Your task to perform on an android device: Open eBay Image 0: 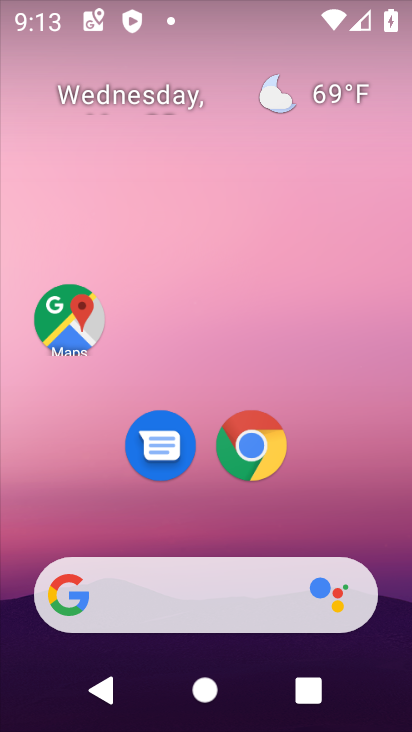
Step 0: click (252, 443)
Your task to perform on an android device: Open eBay Image 1: 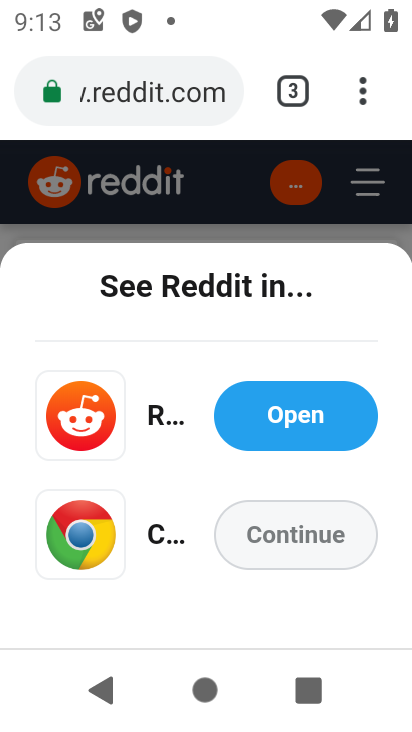
Step 1: click (159, 94)
Your task to perform on an android device: Open eBay Image 2: 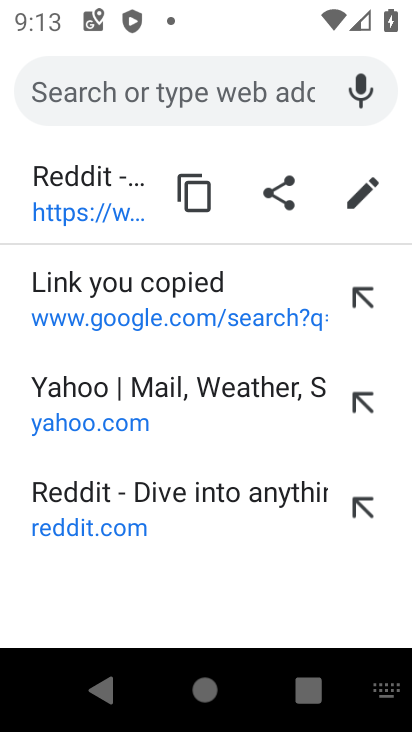
Step 2: type "eBay"
Your task to perform on an android device: Open eBay Image 3: 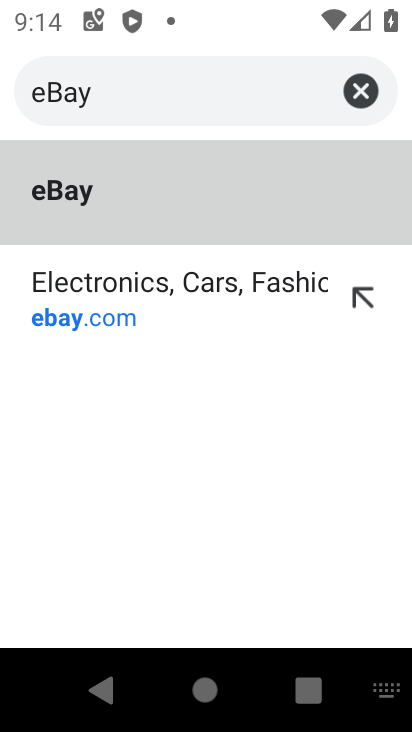
Step 3: click (56, 320)
Your task to perform on an android device: Open eBay Image 4: 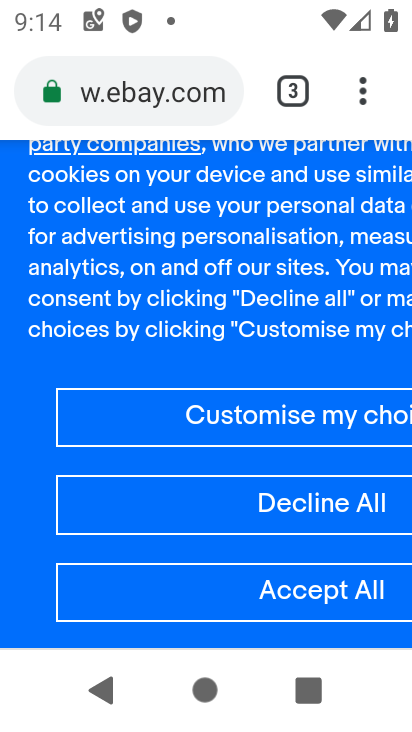
Step 4: task complete